Your task to perform on an android device: Toggle the flashlight Image 0: 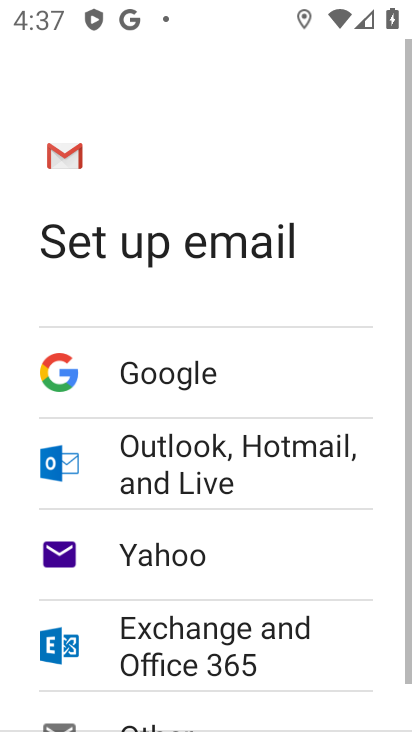
Step 0: press home button
Your task to perform on an android device: Toggle the flashlight Image 1: 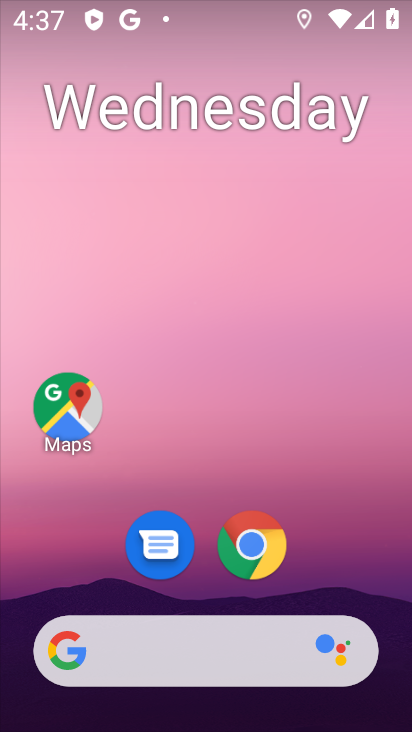
Step 1: drag from (202, 591) to (116, 24)
Your task to perform on an android device: Toggle the flashlight Image 2: 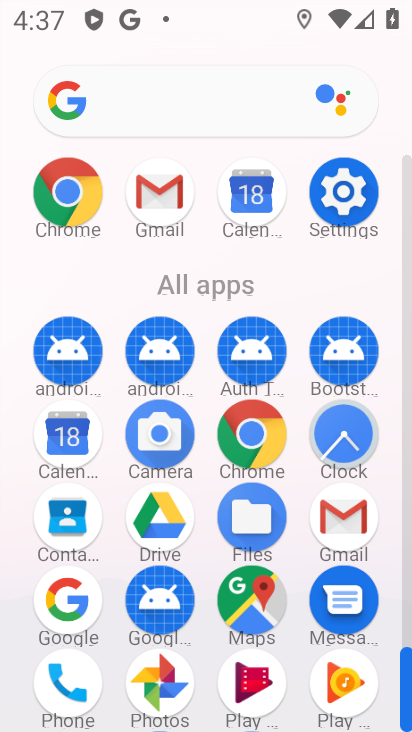
Step 2: click (354, 197)
Your task to perform on an android device: Toggle the flashlight Image 3: 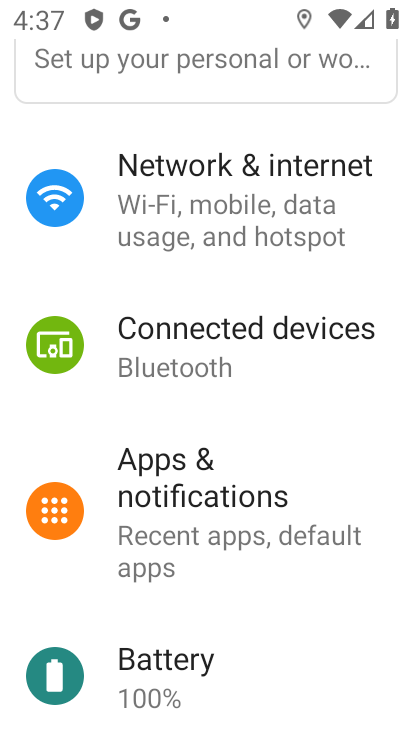
Step 3: task complete